Your task to perform on an android device: delete the emails in spam in the gmail app Image 0: 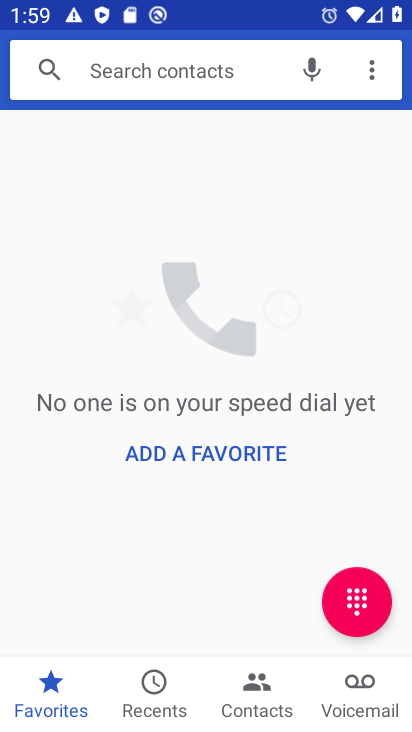
Step 0: press home button
Your task to perform on an android device: delete the emails in spam in the gmail app Image 1: 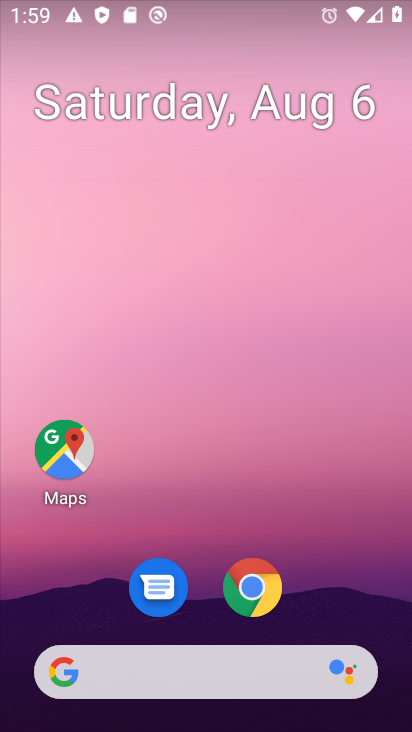
Step 1: drag from (188, 538) to (170, 208)
Your task to perform on an android device: delete the emails in spam in the gmail app Image 2: 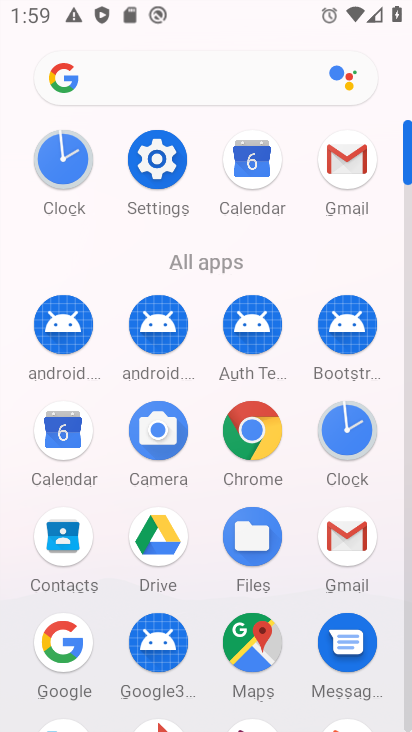
Step 2: click (326, 173)
Your task to perform on an android device: delete the emails in spam in the gmail app Image 3: 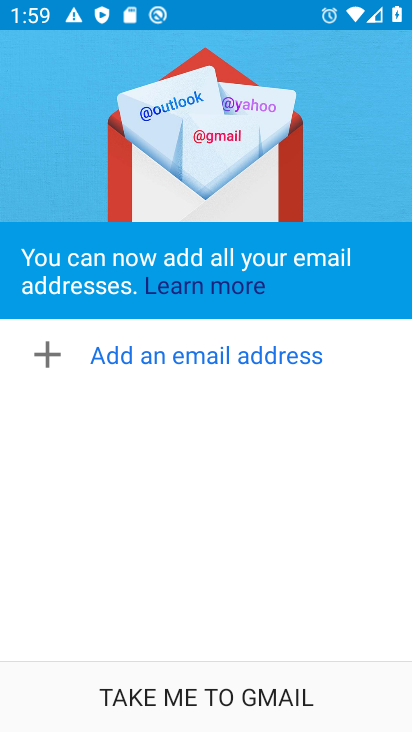
Step 3: task complete